Your task to perform on an android device: see sites visited before in the chrome app Image 0: 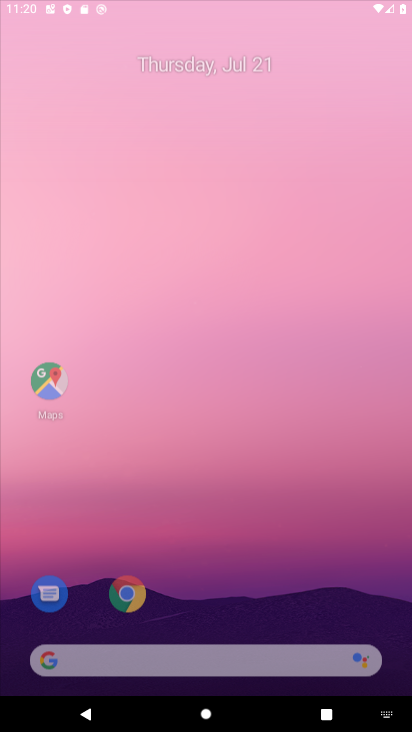
Step 0: click (134, 608)
Your task to perform on an android device: see sites visited before in the chrome app Image 1: 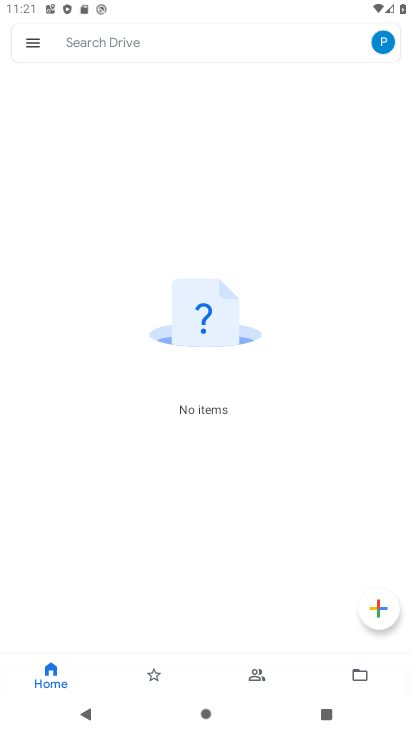
Step 1: press home button
Your task to perform on an android device: see sites visited before in the chrome app Image 2: 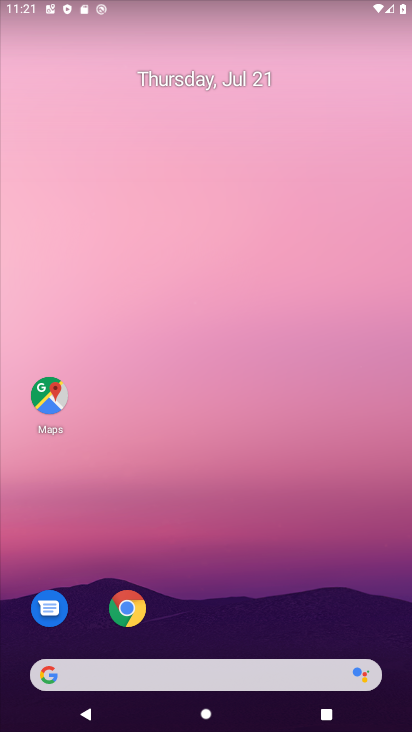
Step 2: click (127, 617)
Your task to perform on an android device: see sites visited before in the chrome app Image 3: 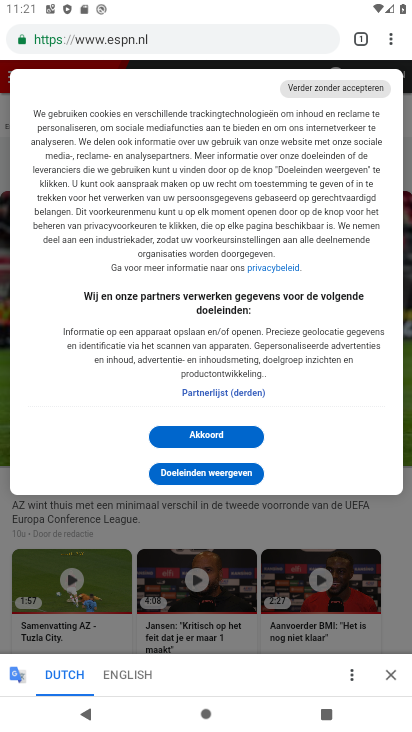
Step 3: click (392, 39)
Your task to perform on an android device: see sites visited before in the chrome app Image 4: 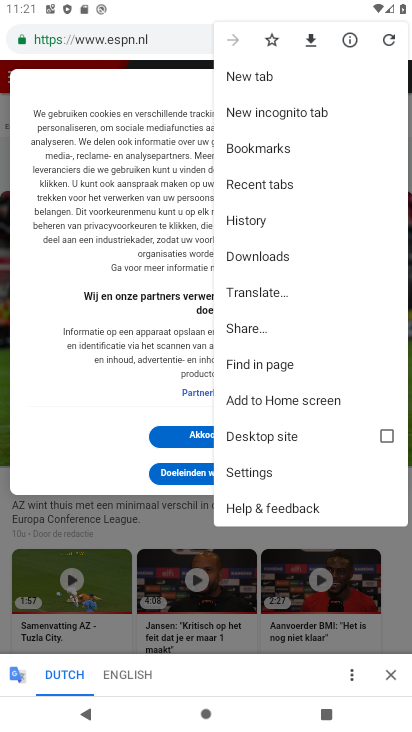
Step 4: click (258, 226)
Your task to perform on an android device: see sites visited before in the chrome app Image 5: 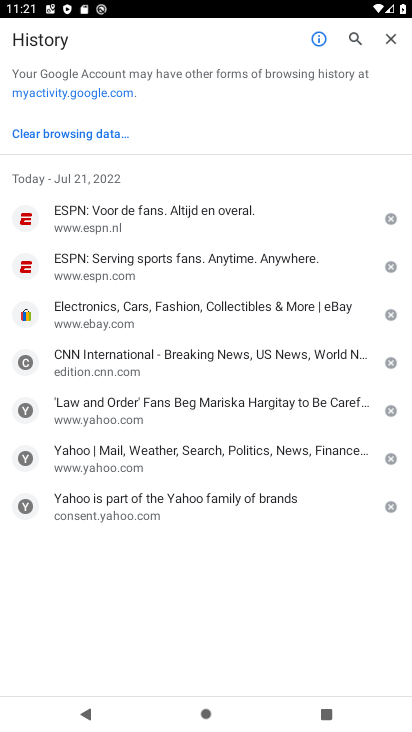
Step 5: task complete